Your task to perform on an android device: Open CNN.com Image 0: 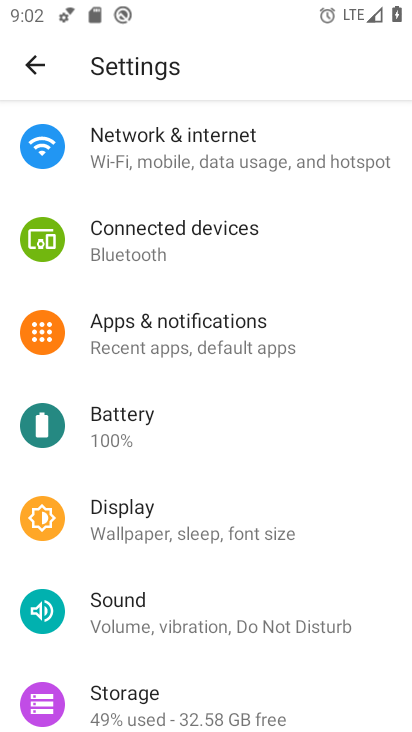
Step 0: press home button
Your task to perform on an android device: Open CNN.com Image 1: 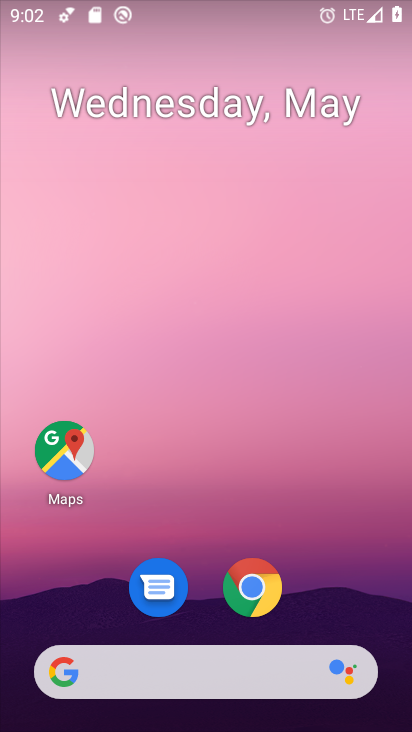
Step 1: click (256, 601)
Your task to perform on an android device: Open CNN.com Image 2: 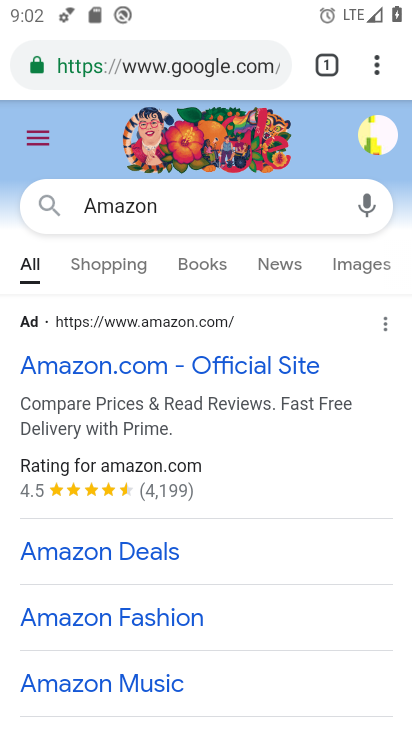
Step 2: click (197, 205)
Your task to perform on an android device: Open CNN.com Image 3: 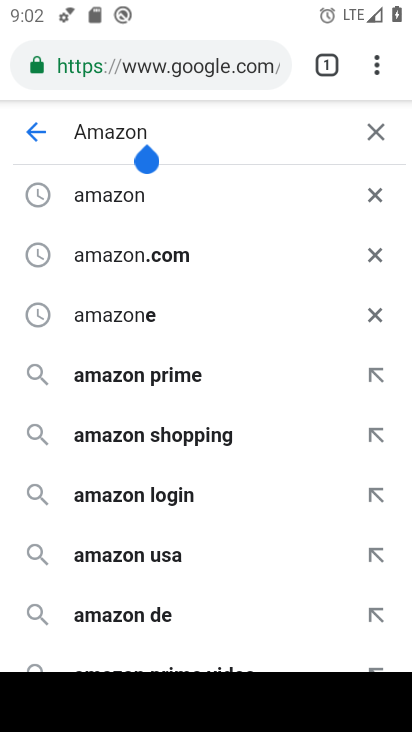
Step 3: type "CNN.com"
Your task to perform on an android device: Open CNN.com Image 4: 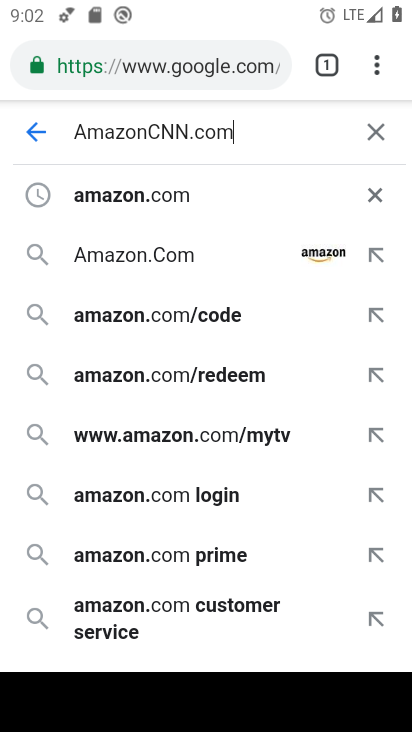
Step 4: click (220, 51)
Your task to perform on an android device: Open CNN.com Image 5: 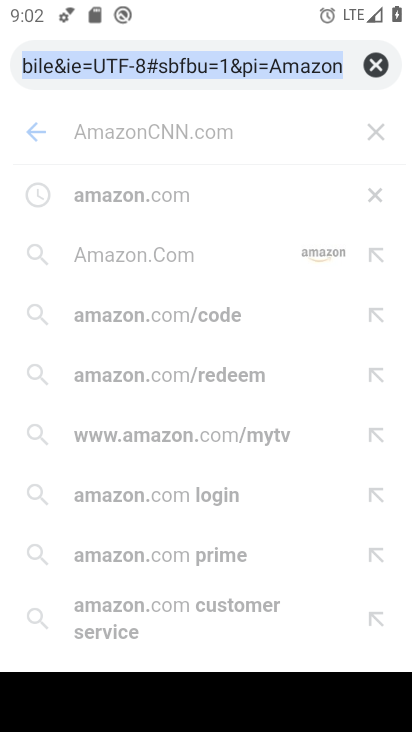
Step 5: type "CNN.com"
Your task to perform on an android device: Open CNN.com Image 6: 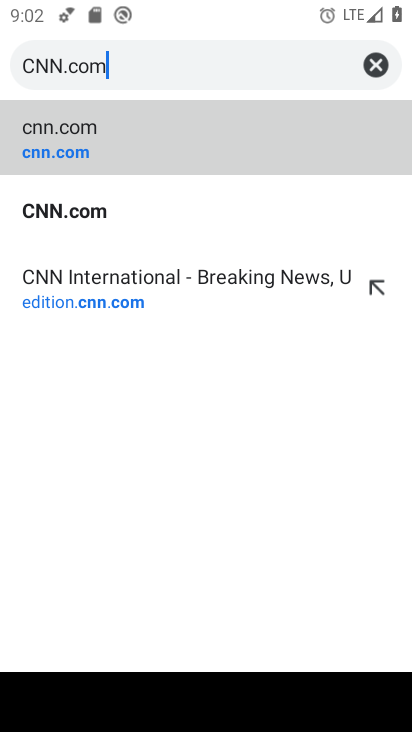
Step 6: click (64, 196)
Your task to perform on an android device: Open CNN.com Image 7: 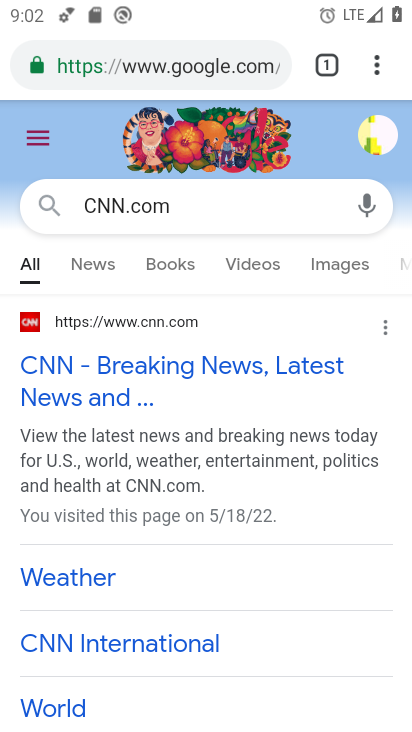
Step 7: task complete